Your task to perform on an android device: move a message to another label in the gmail app Image 0: 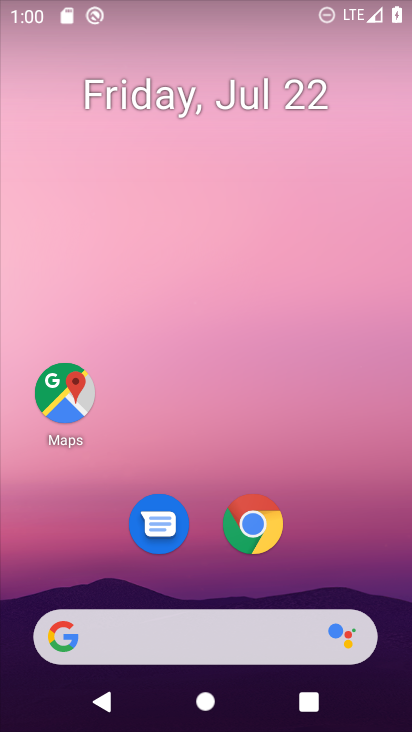
Step 0: drag from (330, 538) to (365, 37)
Your task to perform on an android device: move a message to another label in the gmail app Image 1: 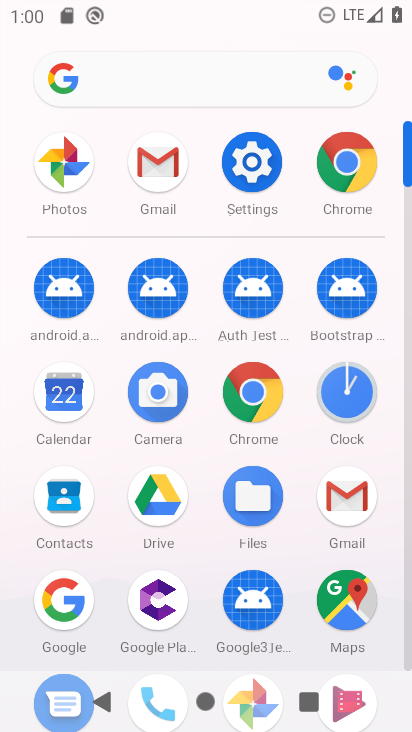
Step 1: click (161, 164)
Your task to perform on an android device: move a message to another label in the gmail app Image 2: 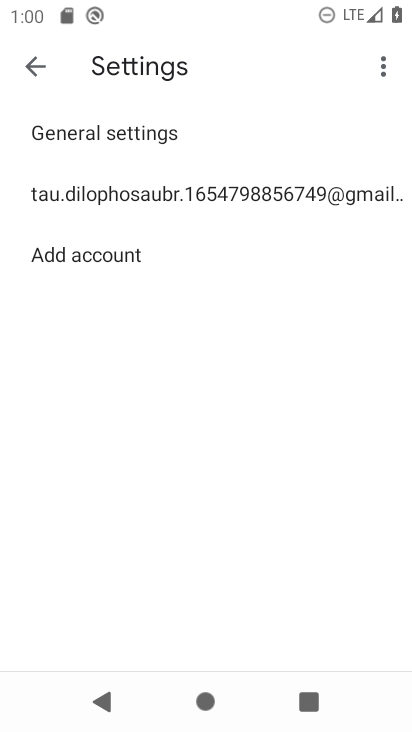
Step 2: click (38, 64)
Your task to perform on an android device: move a message to another label in the gmail app Image 3: 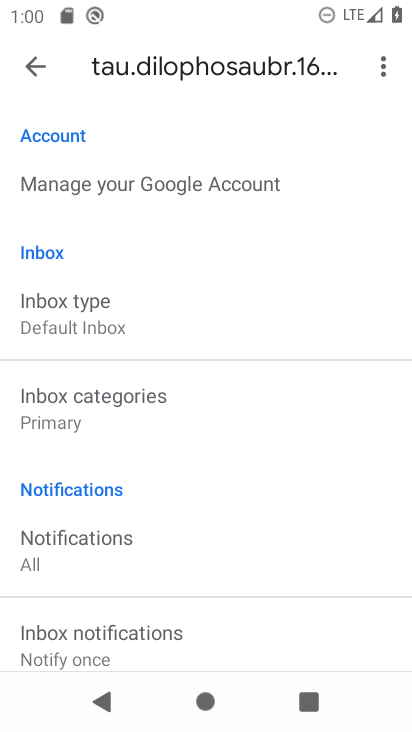
Step 3: click (33, 66)
Your task to perform on an android device: move a message to another label in the gmail app Image 4: 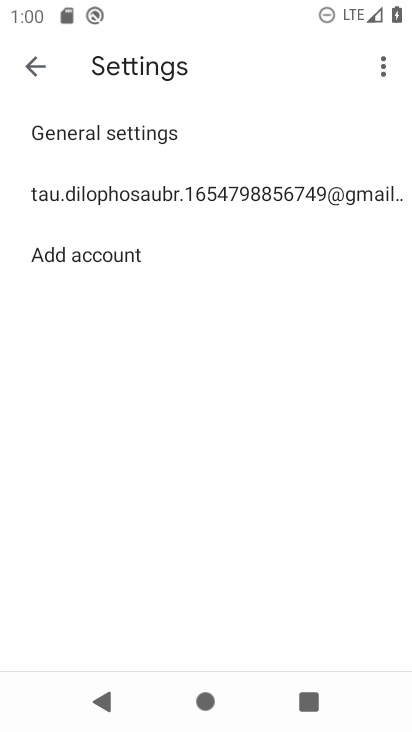
Step 4: click (36, 65)
Your task to perform on an android device: move a message to another label in the gmail app Image 5: 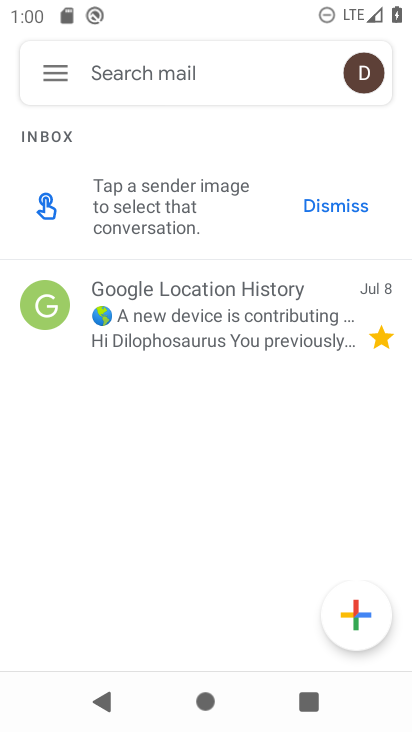
Step 5: click (202, 299)
Your task to perform on an android device: move a message to another label in the gmail app Image 6: 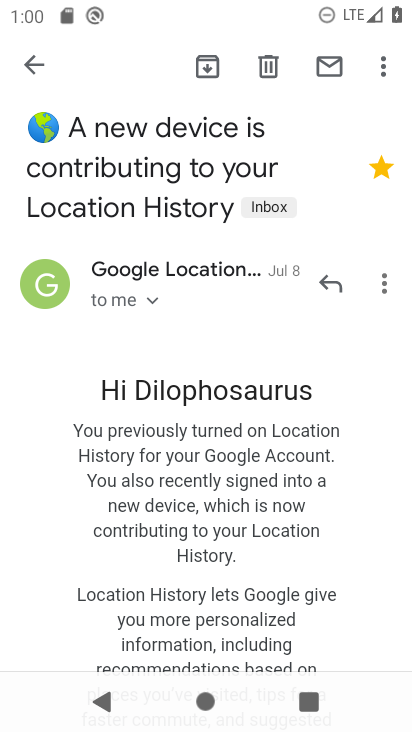
Step 6: click (381, 70)
Your task to perform on an android device: move a message to another label in the gmail app Image 7: 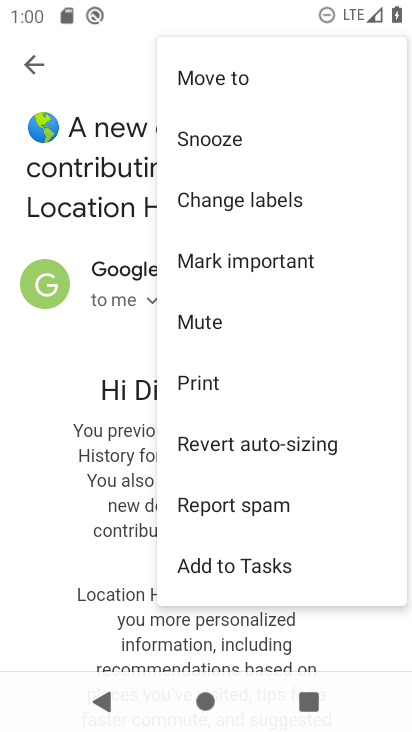
Step 7: click (240, 71)
Your task to perform on an android device: move a message to another label in the gmail app Image 8: 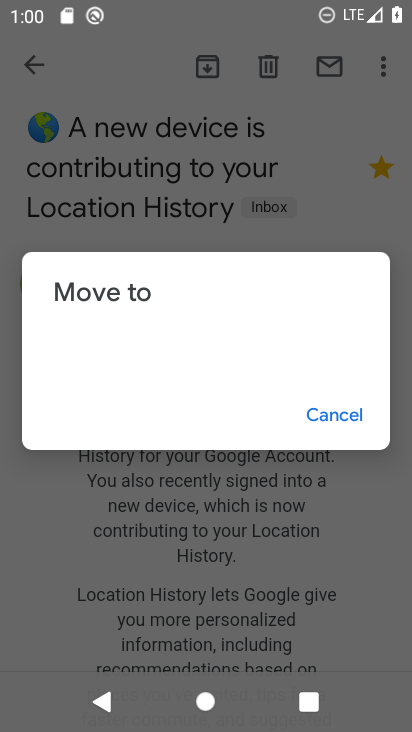
Step 8: click (345, 420)
Your task to perform on an android device: move a message to another label in the gmail app Image 9: 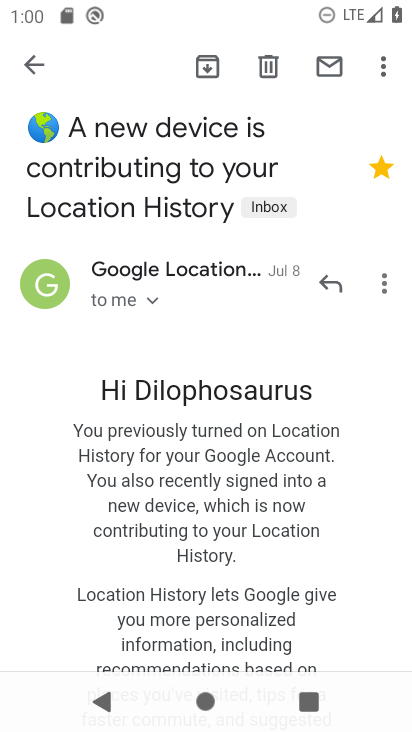
Step 9: task complete